Your task to perform on an android device: Search for "bose soundsport free" on bestbuy.com, select the first entry, add it to the cart, then select checkout. Image 0: 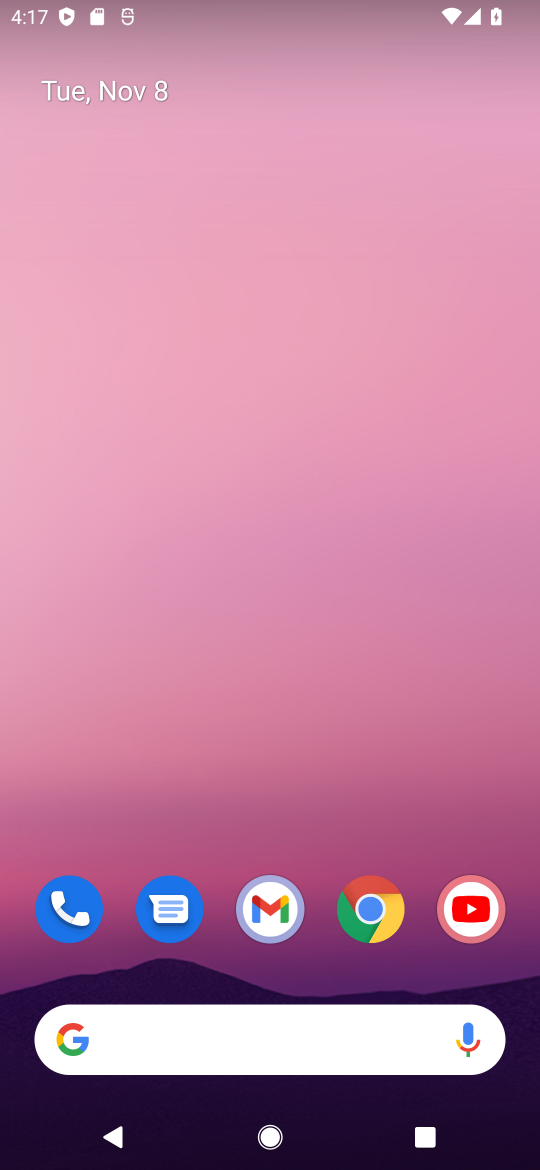
Step 0: press home button
Your task to perform on an android device: Search for "bose soundsport free" on bestbuy.com, select the first entry, add it to the cart, then select checkout. Image 1: 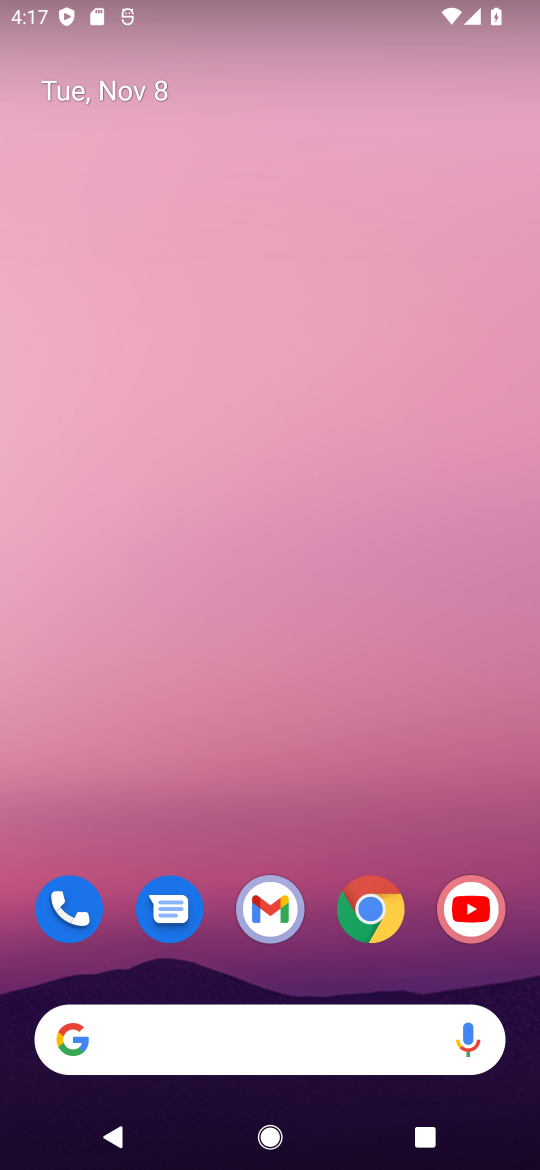
Step 1: click (365, 907)
Your task to perform on an android device: Search for "bose soundsport free" on bestbuy.com, select the first entry, add it to the cart, then select checkout. Image 2: 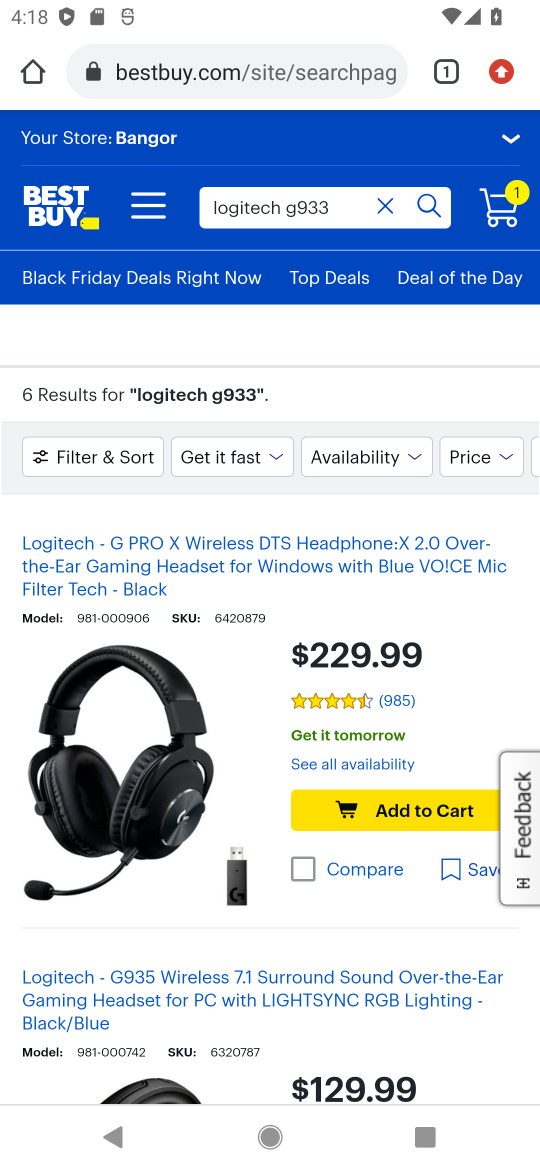
Step 2: click (379, 201)
Your task to perform on an android device: Search for "bose soundsport free" on bestbuy.com, select the first entry, add it to the cart, then select checkout. Image 3: 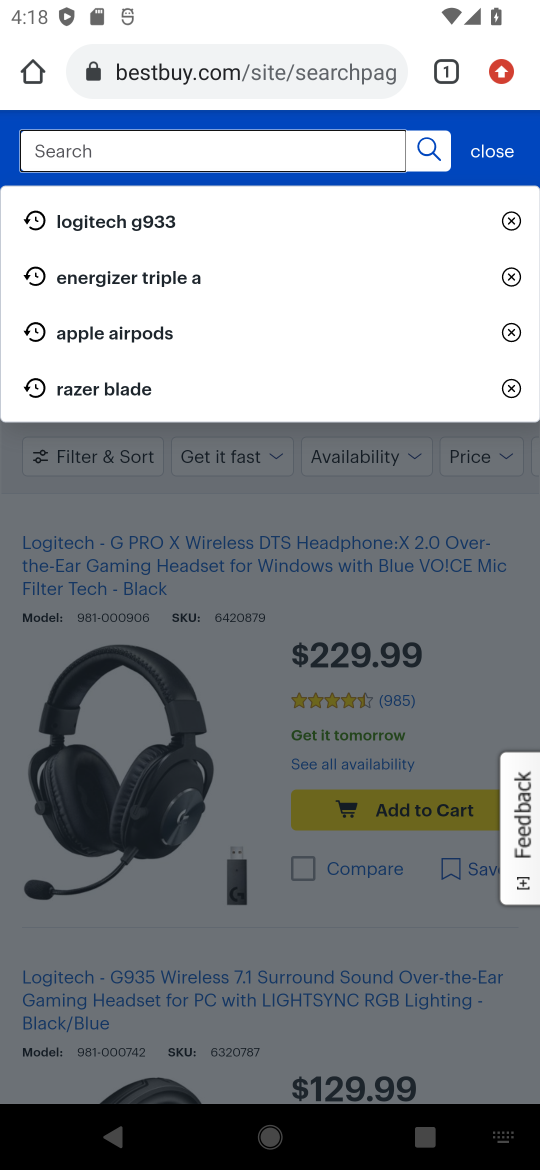
Step 3: type "bose soundsport free"
Your task to perform on an android device: Search for "bose soundsport free" on bestbuy.com, select the first entry, add it to the cart, then select checkout. Image 4: 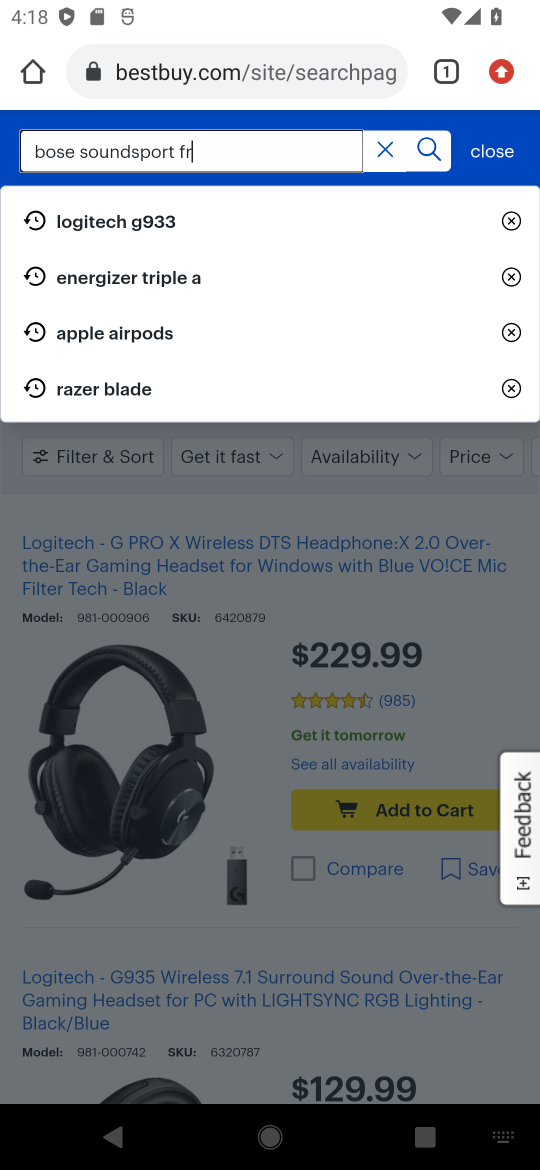
Step 4: press enter
Your task to perform on an android device: Search for "bose soundsport free" on bestbuy.com, select the first entry, add it to the cart, then select checkout. Image 5: 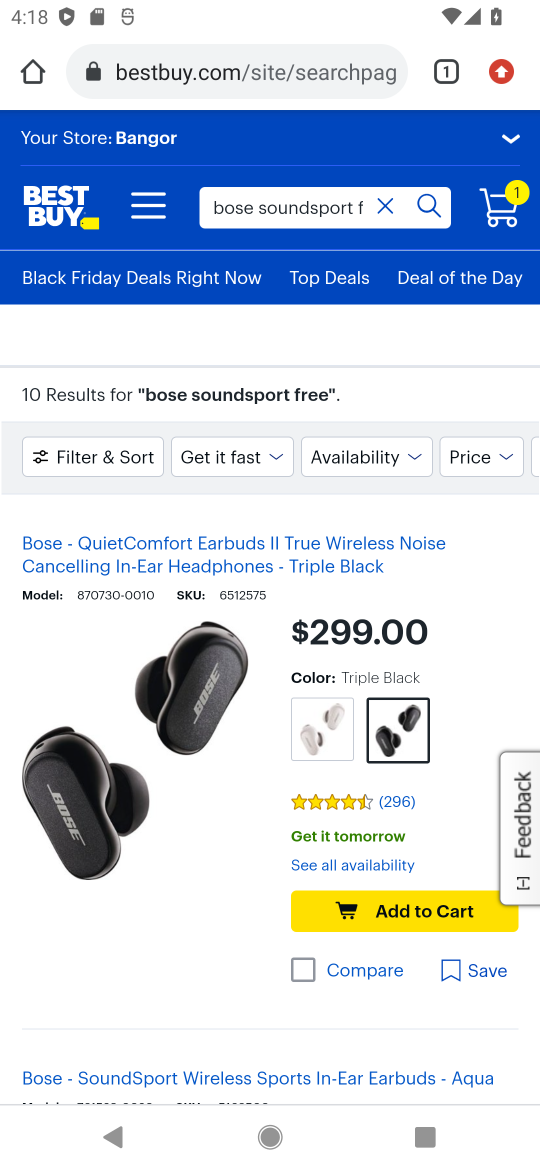
Step 5: task complete